Your task to perform on an android device: Toggle the flashlight Image 0: 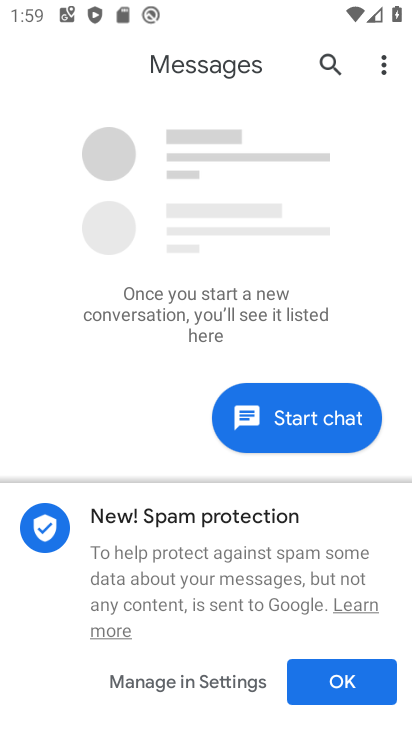
Step 0: drag from (358, 9) to (345, 492)
Your task to perform on an android device: Toggle the flashlight Image 1: 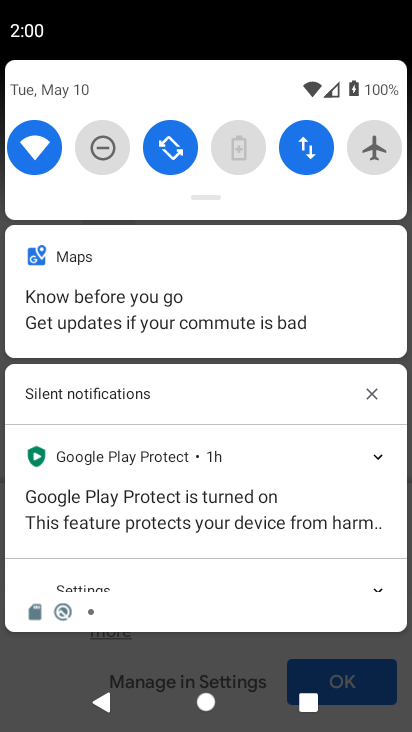
Step 1: task complete